Your task to perform on an android device: Check the news Image 0: 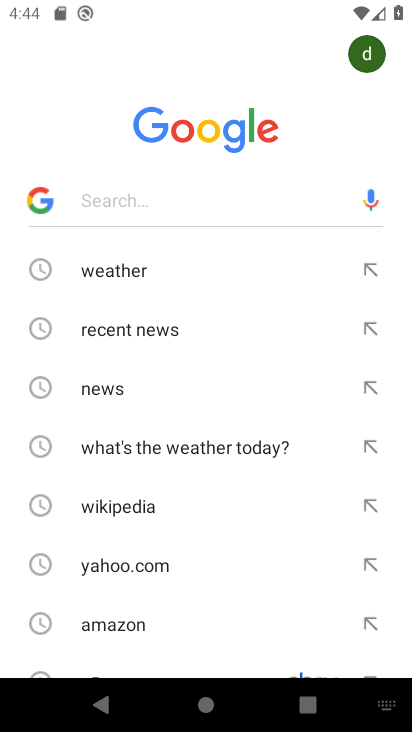
Step 0: press back button
Your task to perform on an android device: Check the news Image 1: 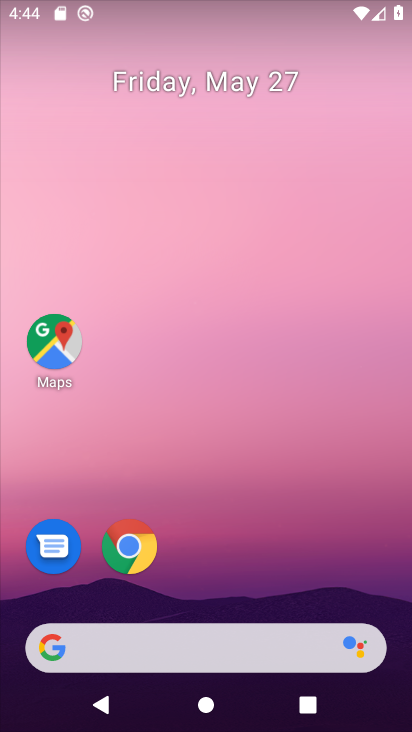
Step 1: drag from (310, 555) to (283, 48)
Your task to perform on an android device: Check the news Image 2: 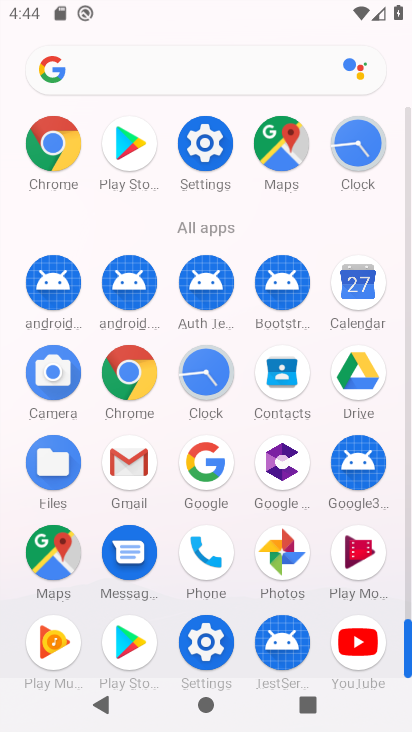
Step 2: drag from (21, 552) to (3, 234)
Your task to perform on an android device: Check the news Image 3: 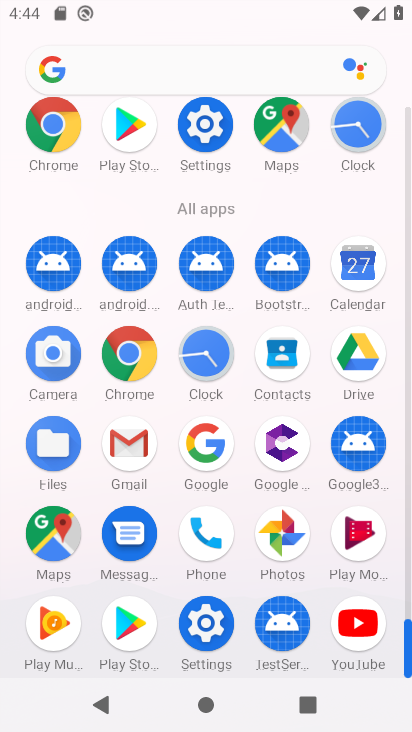
Step 3: click (134, 350)
Your task to perform on an android device: Check the news Image 4: 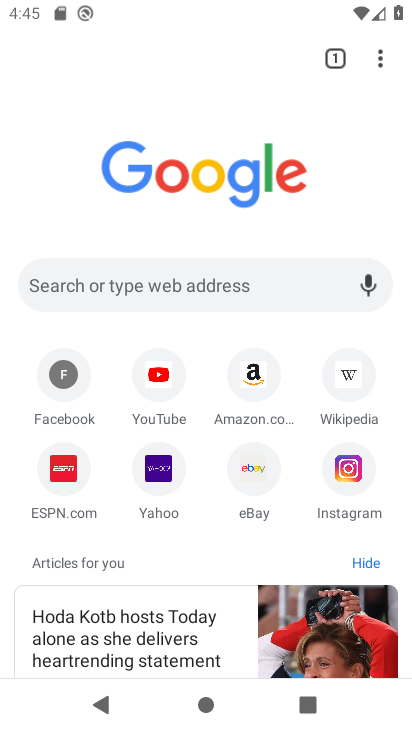
Step 4: click (265, 280)
Your task to perform on an android device: Check the news Image 5: 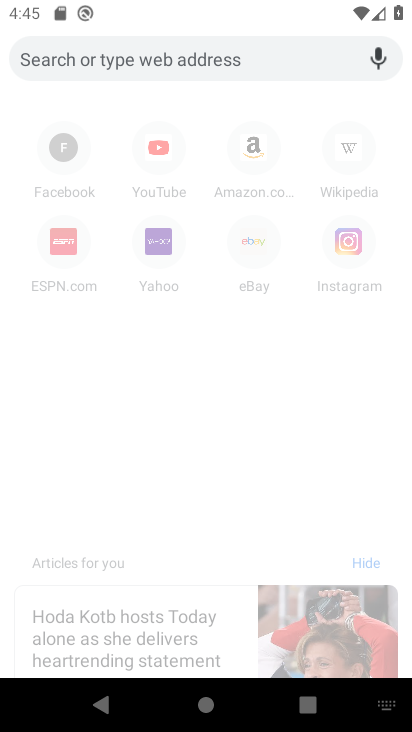
Step 5: type "Check the news"
Your task to perform on an android device: Check the news Image 6: 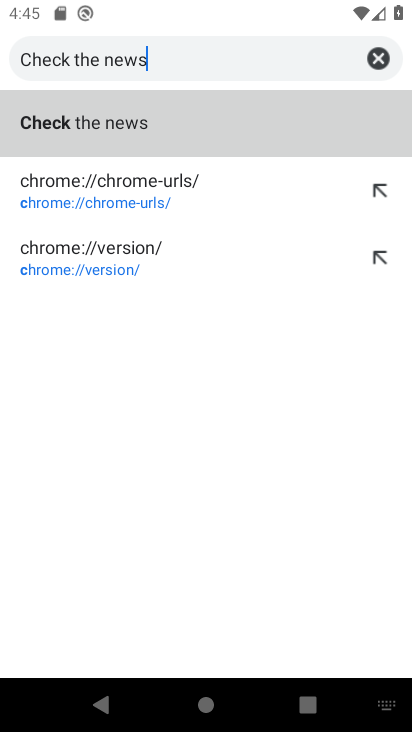
Step 6: type ""
Your task to perform on an android device: Check the news Image 7: 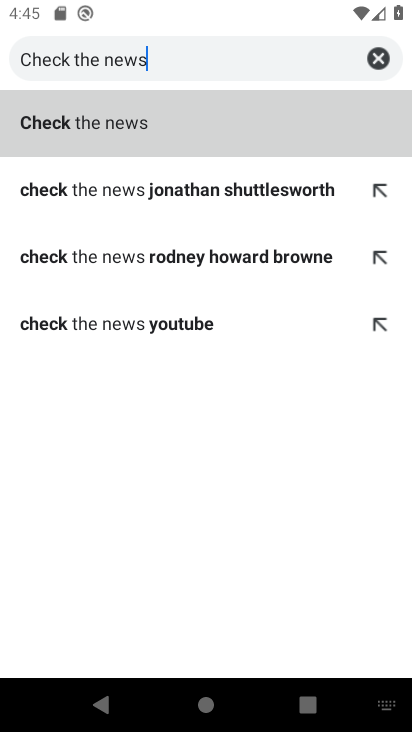
Step 7: click (145, 139)
Your task to perform on an android device: Check the news Image 8: 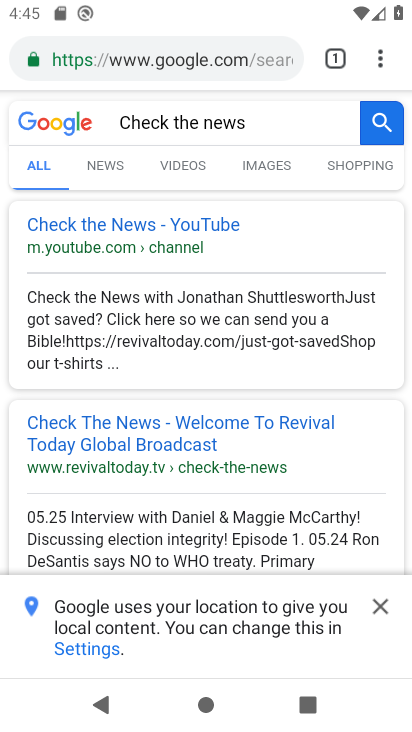
Step 8: click (110, 164)
Your task to perform on an android device: Check the news Image 9: 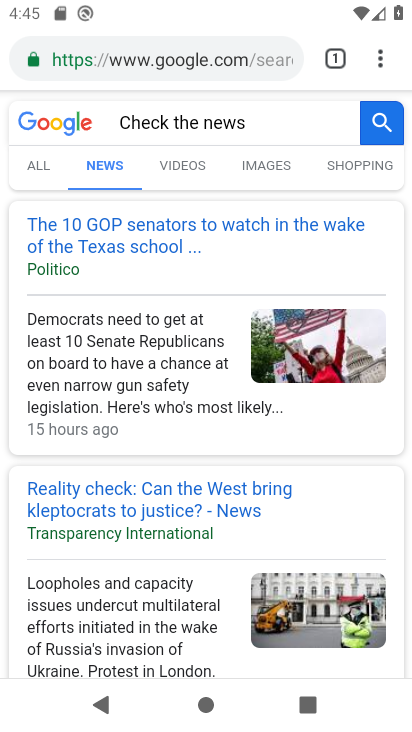
Step 9: task complete